Your task to perform on an android device: turn on the 12-hour format for clock Image 0: 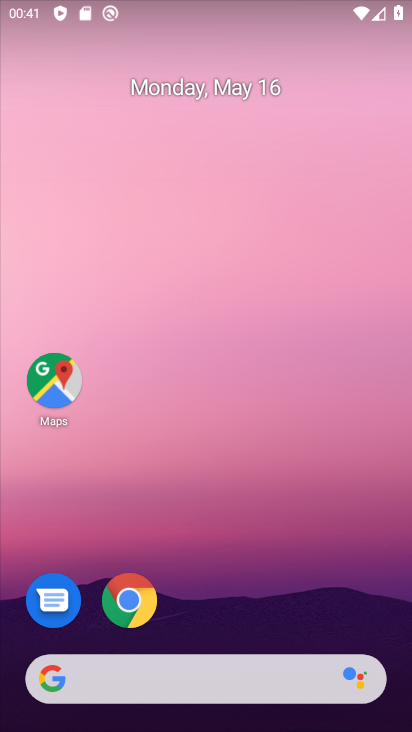
Step 0: drag from (314, 600) to (291, 105)
Your task to perform on an android device: turn on the 12-hour format for clock Image 1: 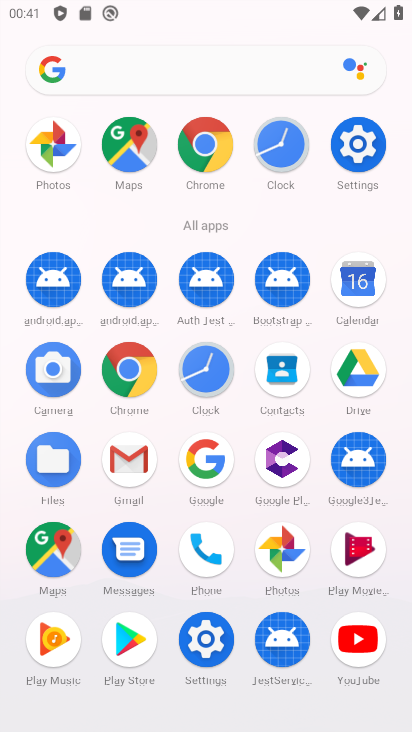
Step 1: click (199, 369)
Your task to perform on an android device: turn on the 12-hour format for clock Image 2: 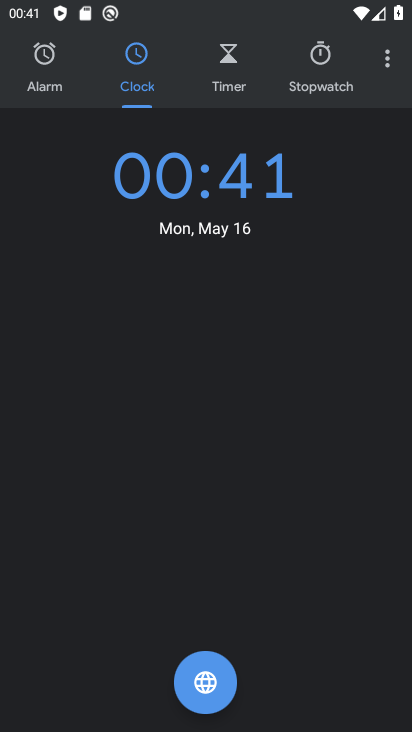
Step 2: click (384, 64)
Your task to perform on an android device: turn on the 12-hour format for clock Image 3: 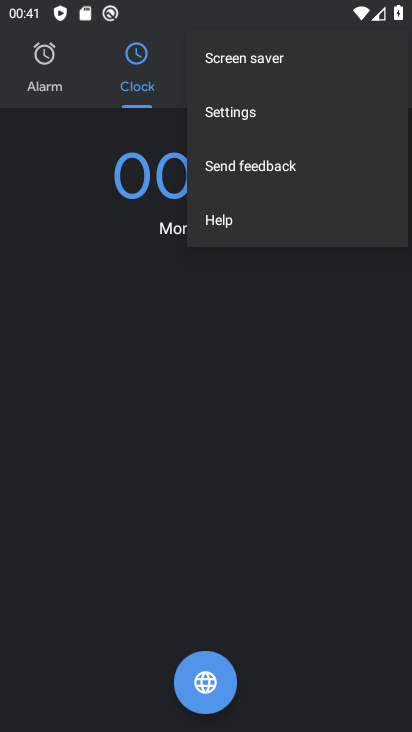
Step 3: click (263, 108)
Your task to perform on an android device: turn on the 12-hour format for clock Image 4: 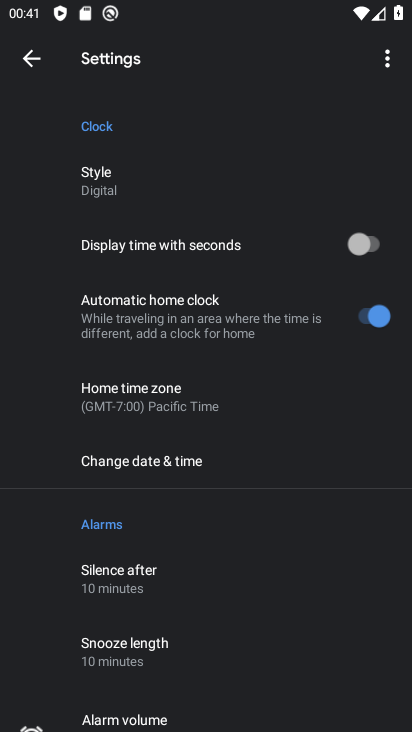
Step 4: drag from (295, 593) to (295, 451)
Your task to perform on an android device: turn on the 12-hour format for clock Image 5: 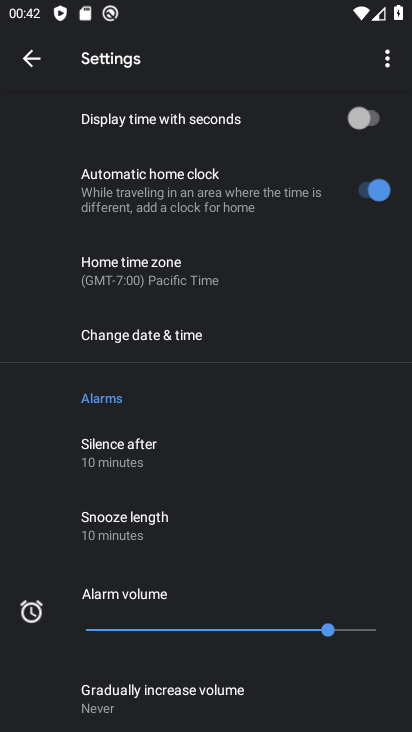
Step 5: drag from (288, 655) to (268, 428)
Your task to perform on an android device: turn on the 12-hour format for clock Image 6: 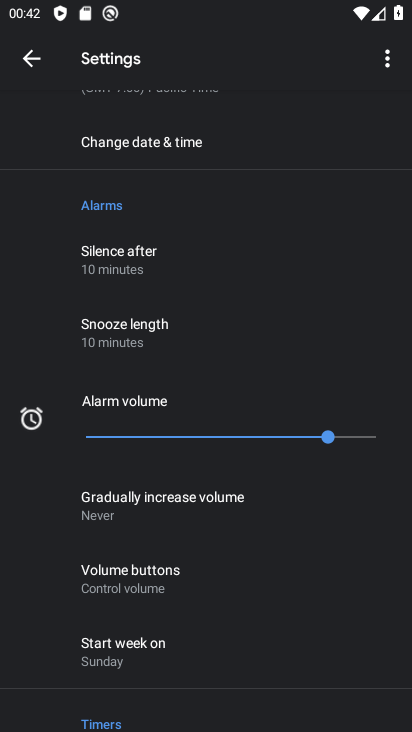
Step 6: drag from (298, 659) to (272, 437)
Your task to perform on an android device: turn on the 12-hour format for clock Image 7: 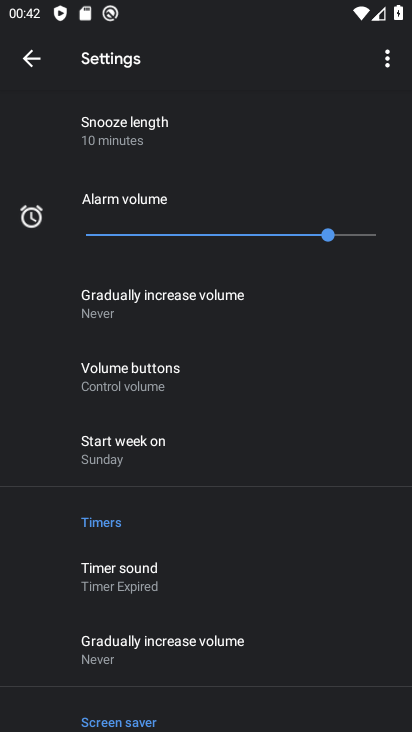
Step 7: drag from (294, 625) to (294, 400)
Your task to perform on an android device: turn on the 12-hour format for clock Image 8: 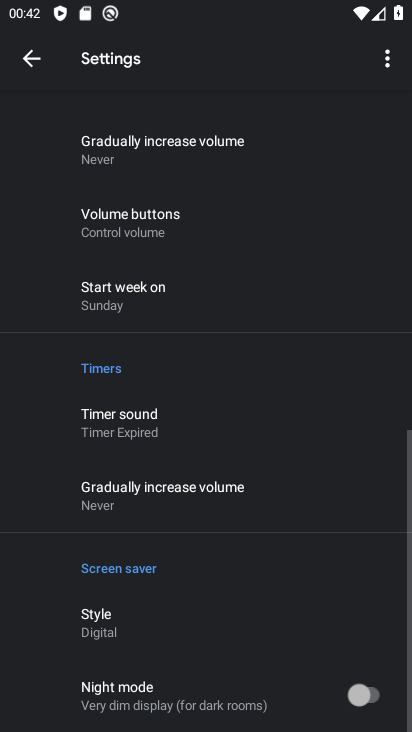
Step 8: drag from (288, 258) to (276, 454)
Your task to perform on an android device: turn on the 12-hour format for clock Image 9: 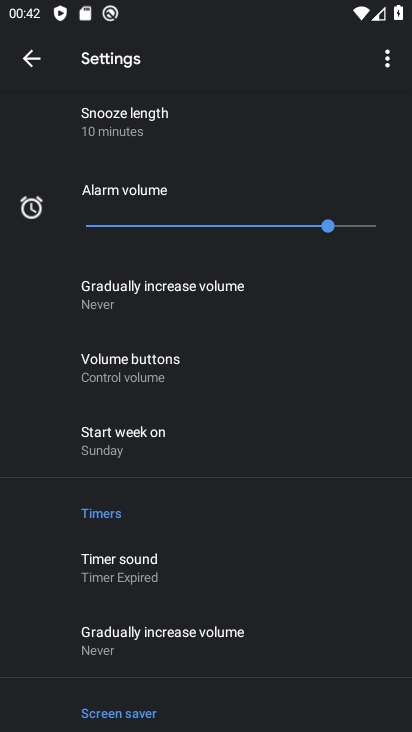
Step 9: drag from (281, 308) to (284, 478)
Your task to perform on an android device: turn on the 12-hour format for clock Image 10: 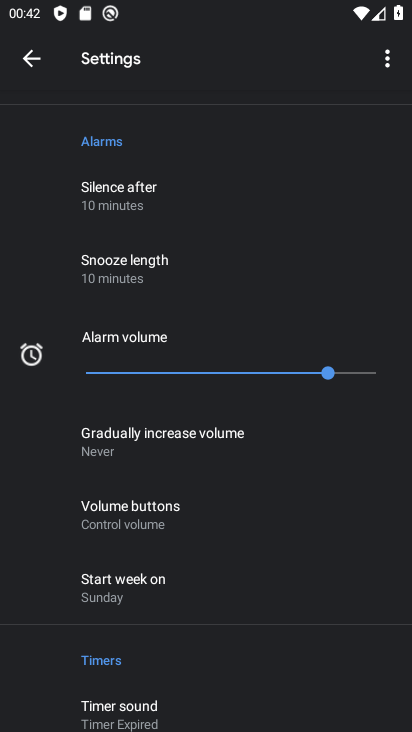
Step 10: drag from (264, 252) to (267, 426)
Your task to perform on an android device: turn on the 12-hour format for clock Image 11: 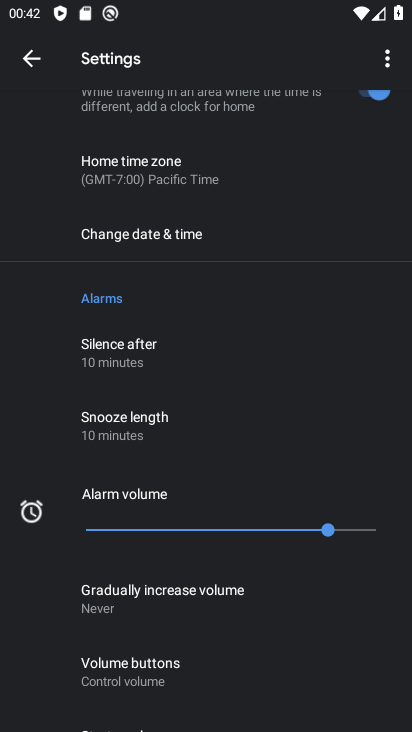
Step 11: drag from (275, 189) to (280, 344)
Your task to perform on an android device: turn on the 12-hour format for clock Image 12: 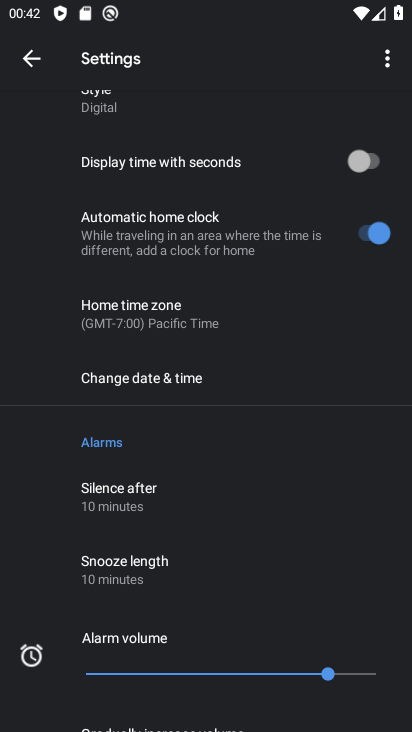
Step 12: drag from (273, 178) to (266, 375)
Your task to perform on an android device: turn on the 12-hour format for clock Image 13: 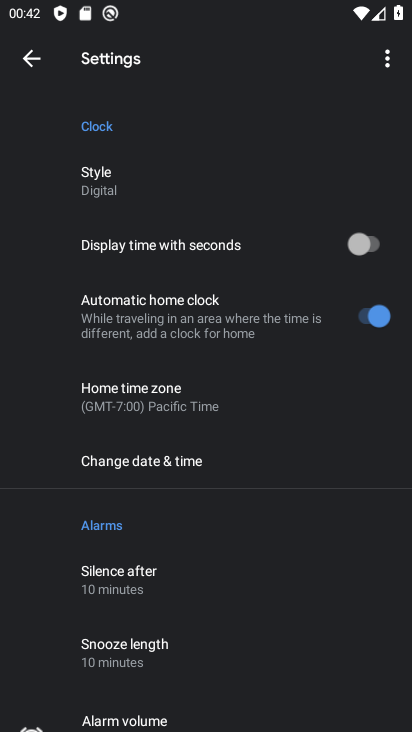
Step 13: click (184, 464)
Your task to perform on an android device: turn on the 12-hour format for clock Image 14: 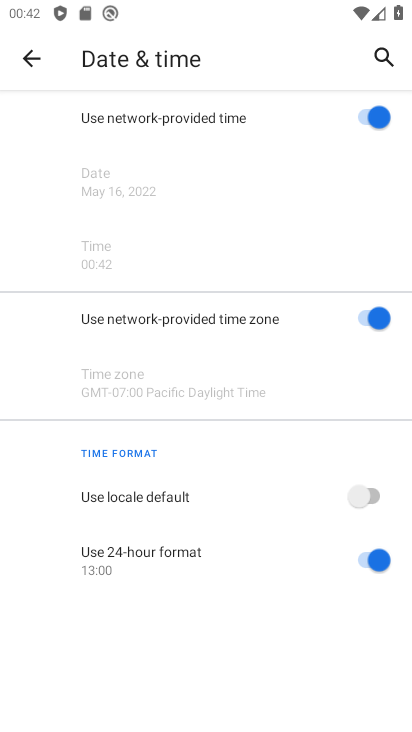
Step 14: click (368, 559)
Your task to perform on an android device: turn on the 12-hour format for clock Image 15: 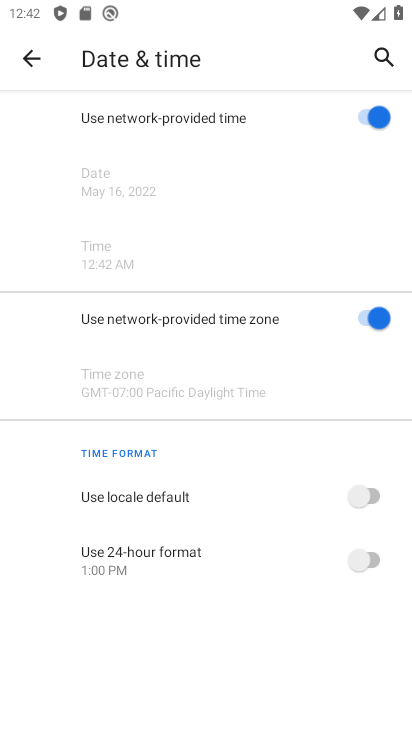
Step 15: task complete